Your task to perform on an android device: Open Reddit.com Image 0: 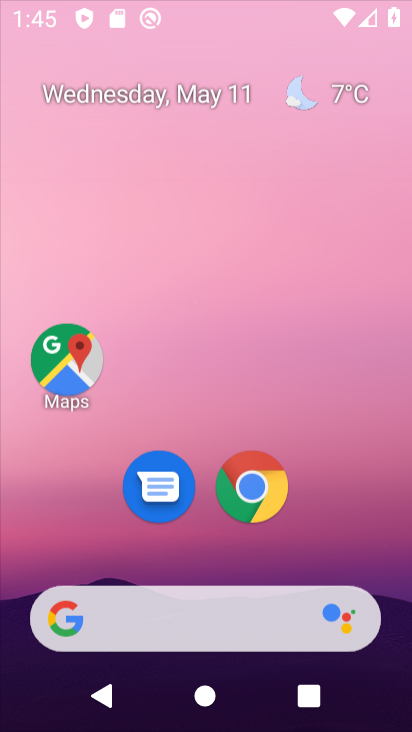
Step 0: click (263, 505)
Your task to perform on an android device: Open Reddit.com Image 1: 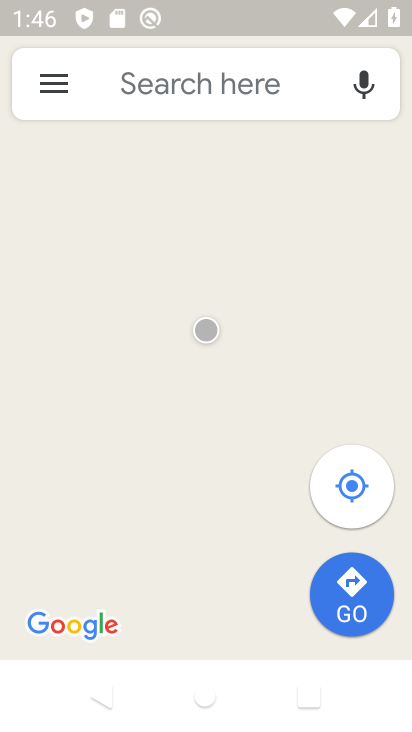
Step 1: press back button
Your task to perform on an android device: Open Reddit.com Image 2: 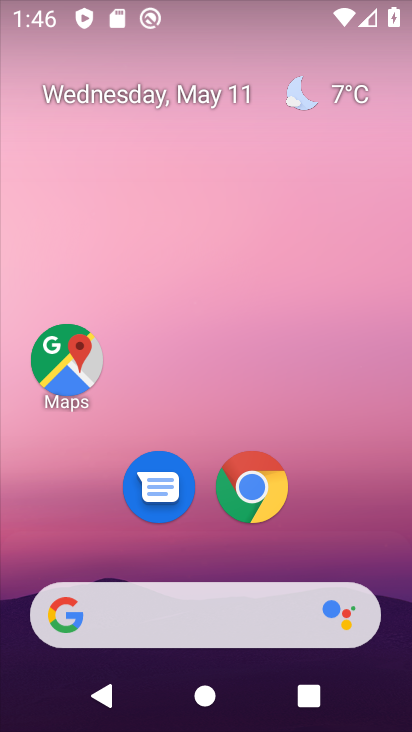
Step 2: click (164, 607)
Your task to perform on an android device: Open Reddit.com Image 3: 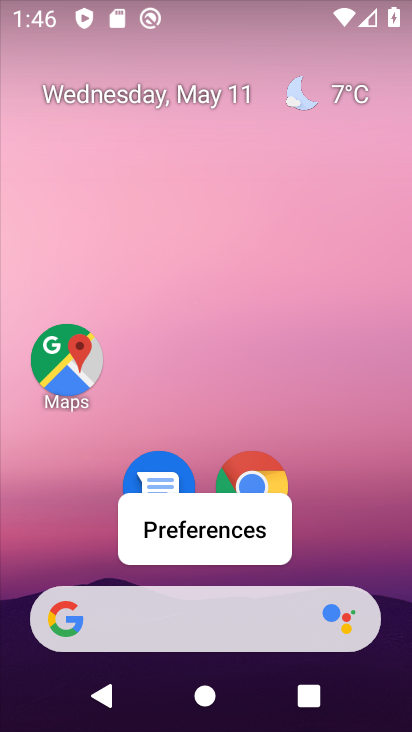
Step 3: click (173, 630)
Your task to perform on an android device: Open Reddit.com Image 4: 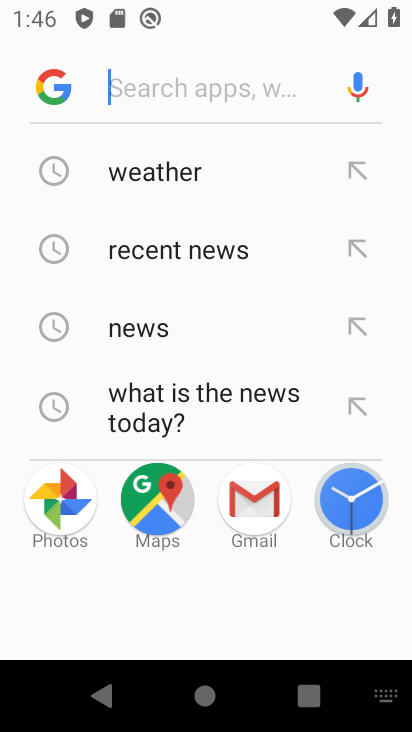
Step 4: type "Reddit.com"
Your task to perform on an android device: Open Reddit.com Image 5: 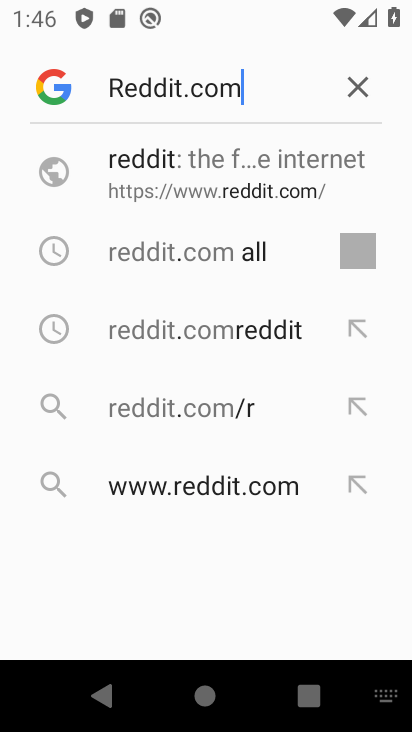
Step 5: click (274, 200)
Your task to perform on an android device: Open Reddit.com Image 6: 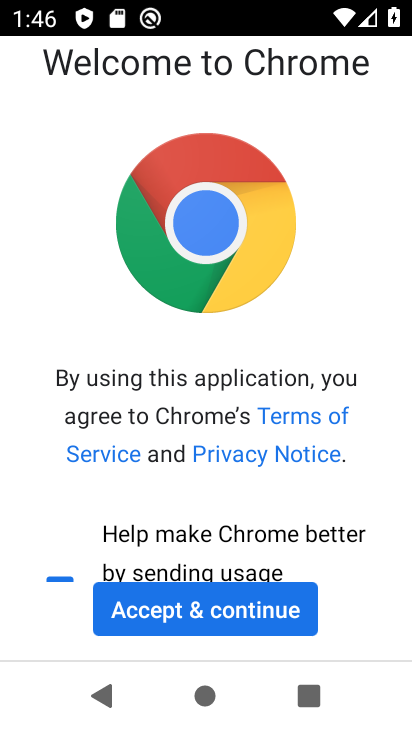
Step 6: click (225, 588)
Your task to perform on an android device: Open Reddit.com Image 7: 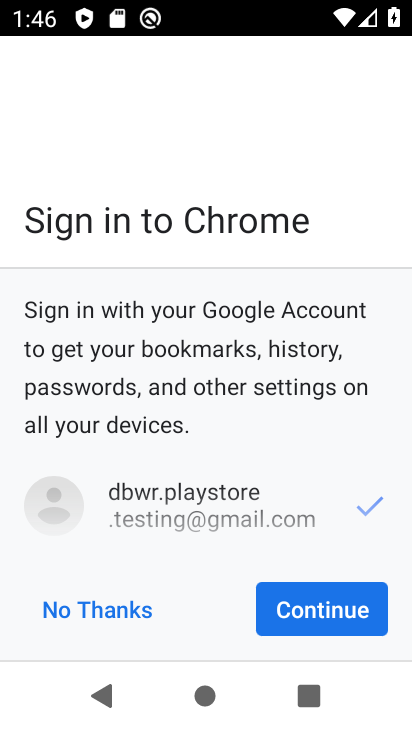
Step 7: click (345, 629)
Your task to perform on an android device: Open Reddit.com Image 8: 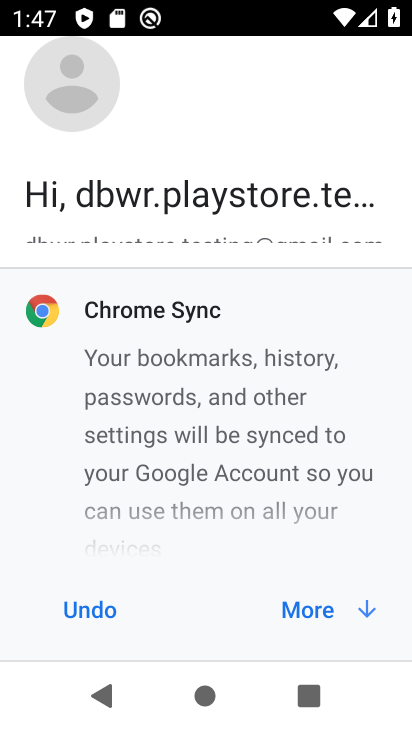
Step 8: click (320, 612)
Your task to perform on an android device: Open Reddit.com Image 9: 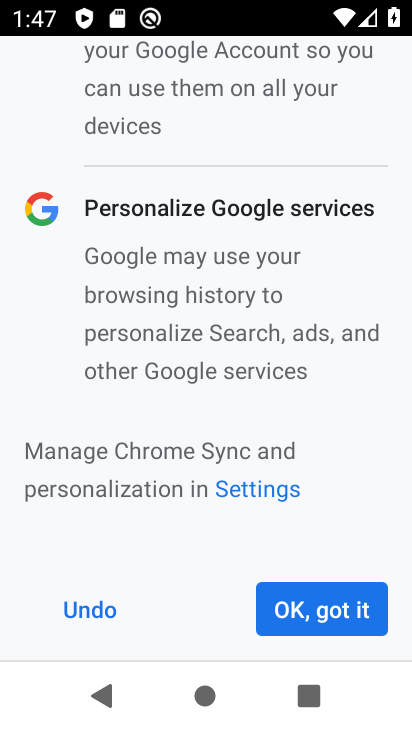
Step 9: click (320, 612)
Your task to perform on an android device: Open Reddit.com Image 10: 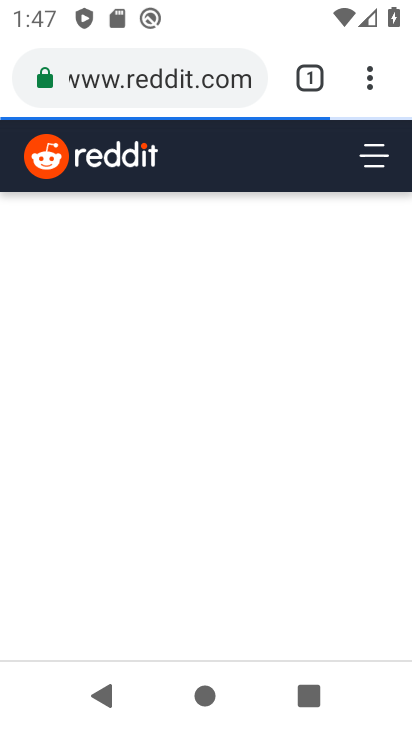
Step 10: task complete